Your task to perform on an android device: Toggle the flashlight Image 0: 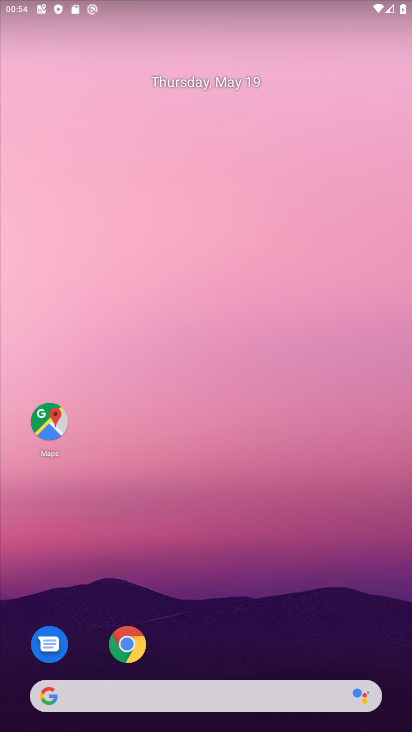
Step 0: drag from (319, 492) to (295, 164)
Your task to perform on an android device: Toggle the flashlight Image 1: 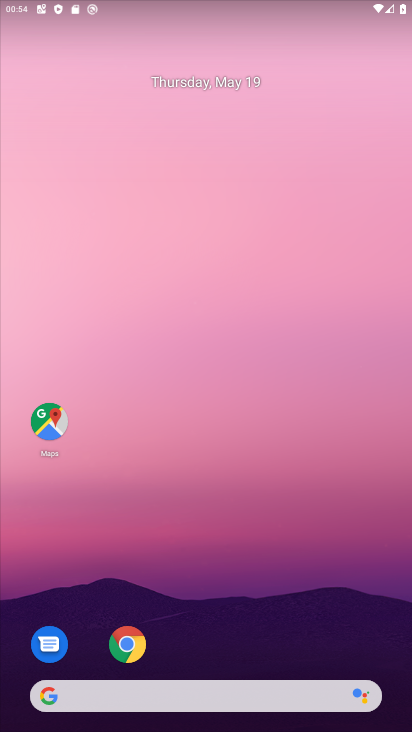
Step 1: drag from (327, 621) to (328, 178)
Your task to perform on an android device: Toggle the flashlight Image 2: 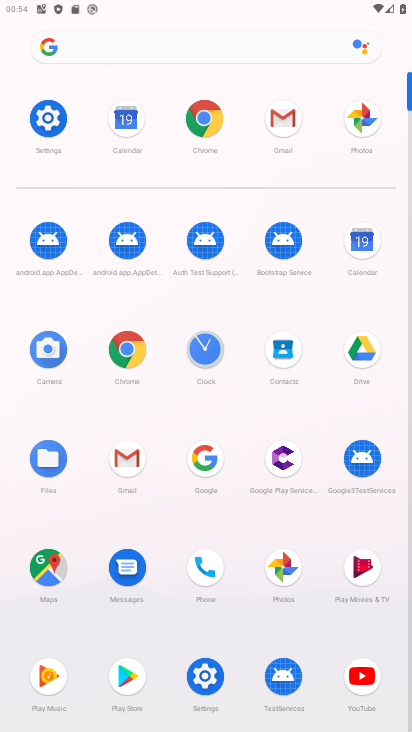
Step 2: click (203, 670)
Your task to perform on an android device: Toggle the flashlight Image 3: 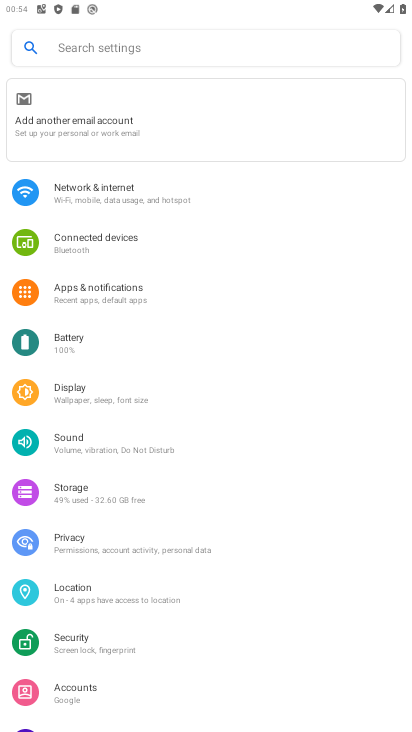
Step 3: click (225, 34)
Your task to perform on an android device: Toggle the flashlight Image 4: 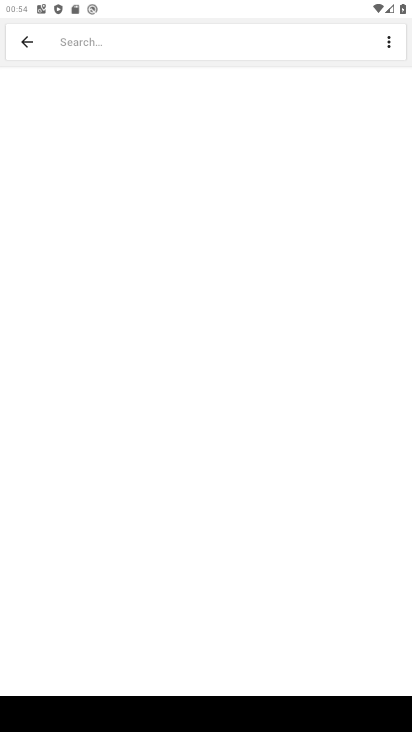
Step 4: type "flashlight"
Your task to perform on an android device: Toggle the flashlight Image 5: 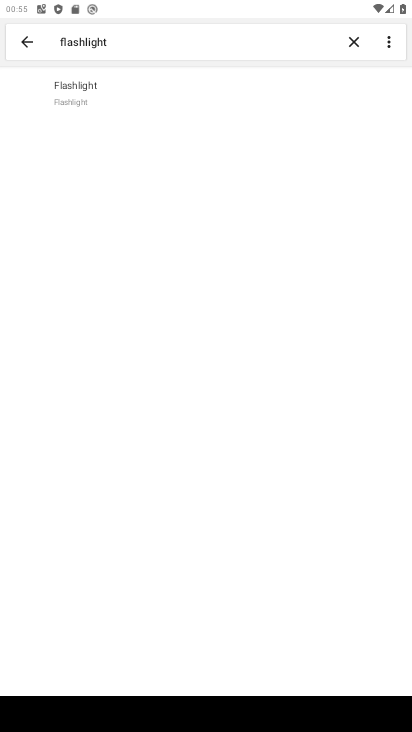
Step 5: click (165, 117)
Your task to perform on an android device: Toggle the flashlight Image 6: 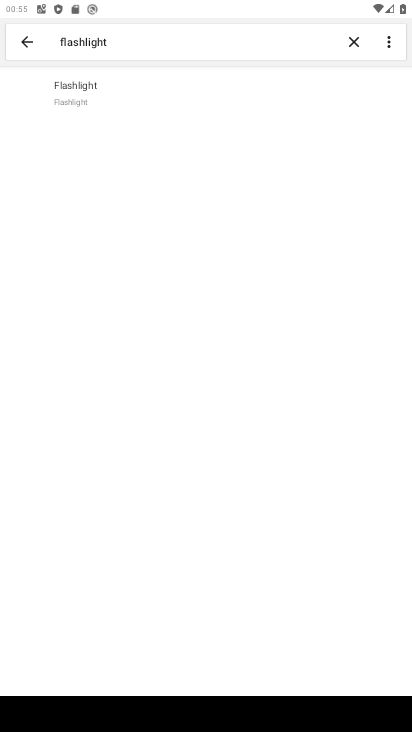
Step 6: task complete